Your task to perform on an android device: change the clock style Image 0: 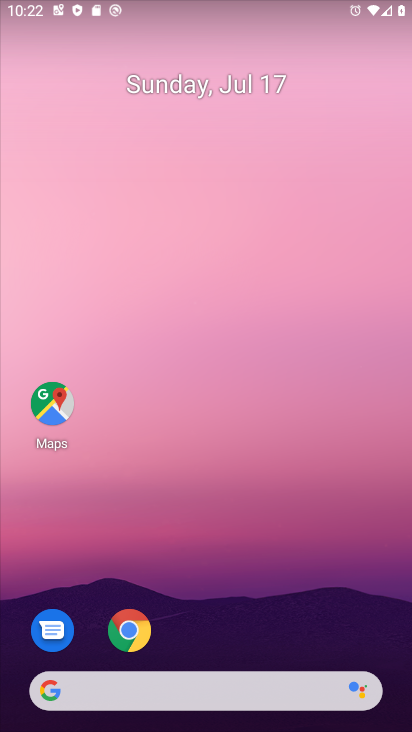
Step 0: drag from (333, 621) to (353, 58)
Your task to perform on an android device: change the clock style Image 1: 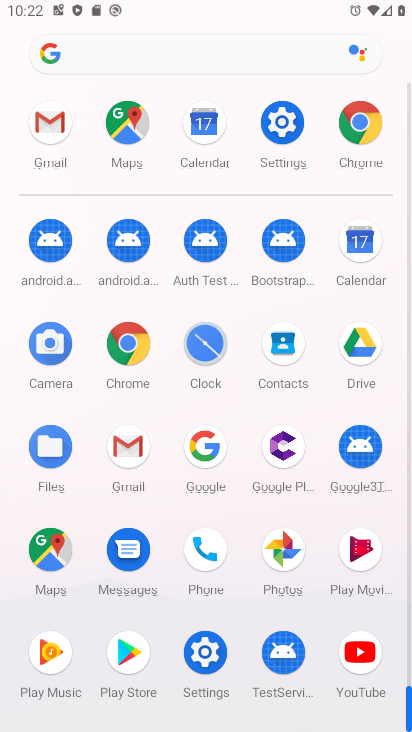
Step 1: click (212, 344)
Your task to perform on an android device: change the clock style Image 2: 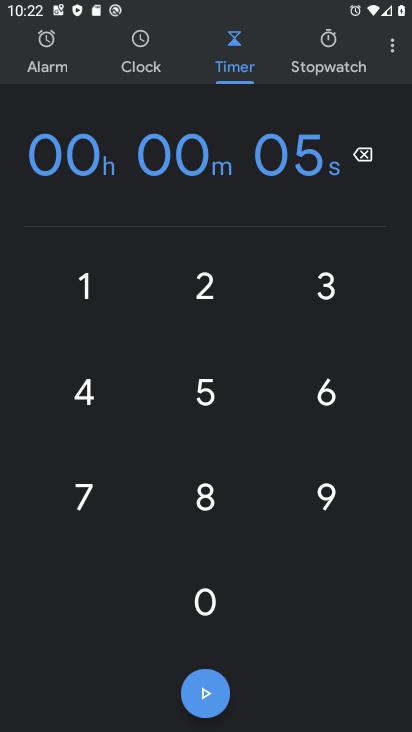
Step 2: click (394, 48)
Your task to perform on an android device: change the clock style Image 3: 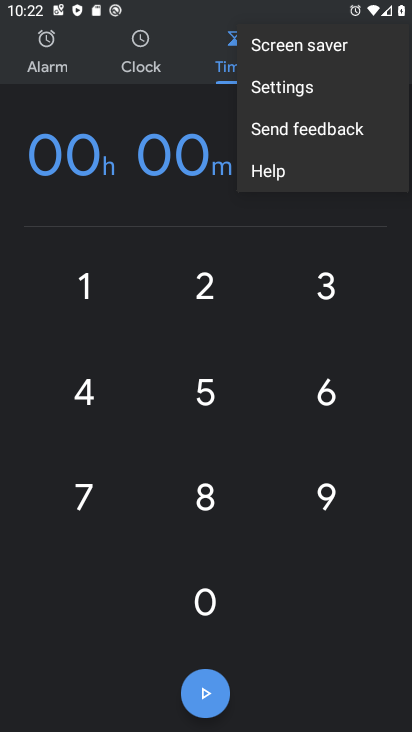
Step 3: click (311, 97)
Your task to perform on an android device: change the clock style Image 4: 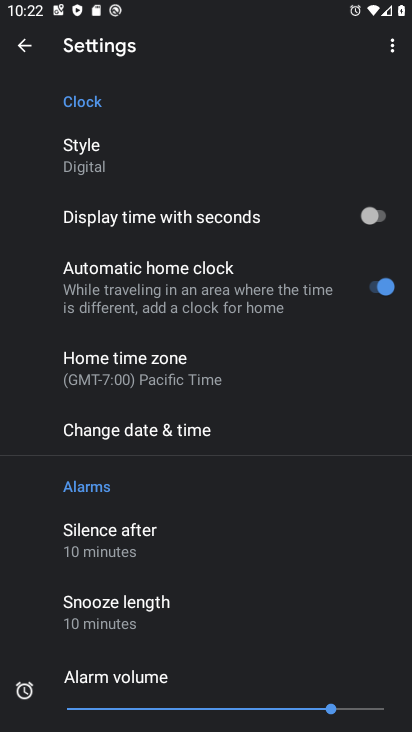
Step 4: drag from (299, 430) to (316, 308)
Your task to perform on an android device: change the clock style Image 5: 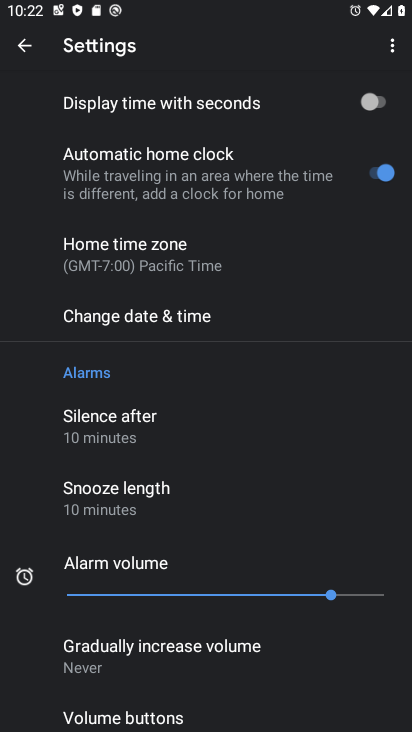
Step 5: drag from (294, 478) to (314, 227)
Your task to perform on an android device: change the clock style Image 6: 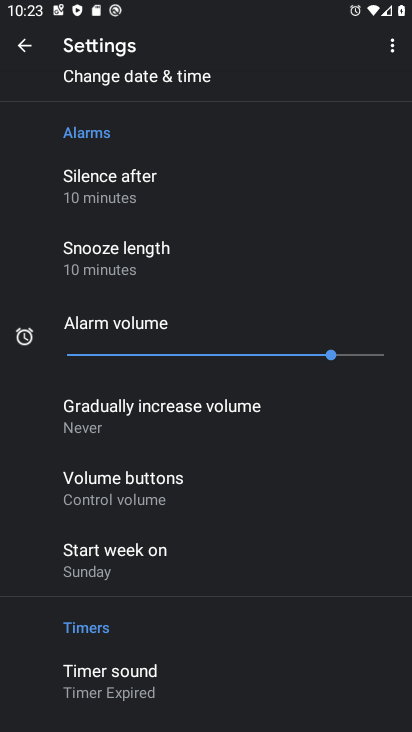
Step 6: drag from (307, 484) to (316, 259)
Your task to perform on an android device: change the clock style Image 7: 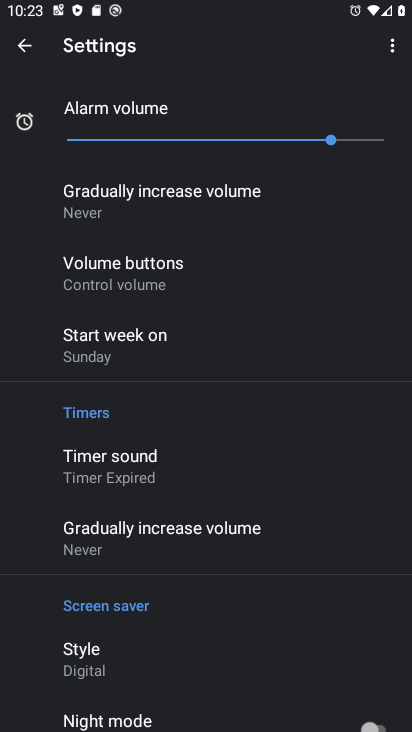
Step 7: drag from (297, 392) to (302, 227)
Your task to perform on an android device: change the clock style Image 8: 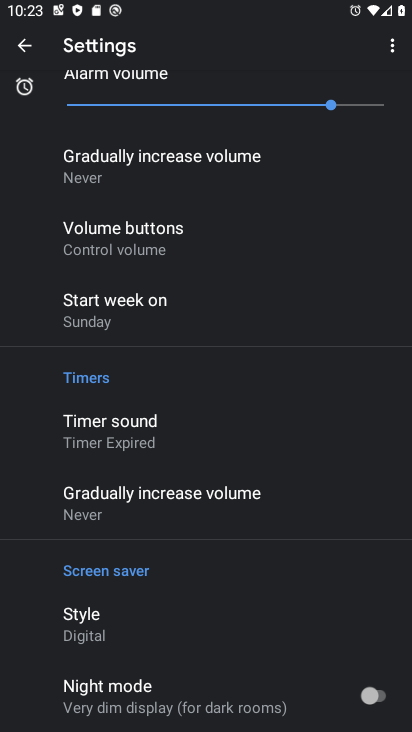
Step 8: drag from (313, 185) to (296, 364)
Your task to perform on an android device: change the clock style Image 9: 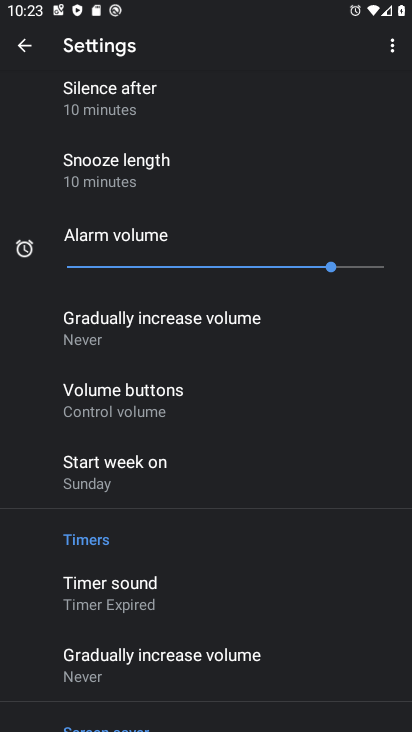
Step 9: drag from (302, 168) to (293, 353)
Your task to perform on an android device: change the clock style Image 10: 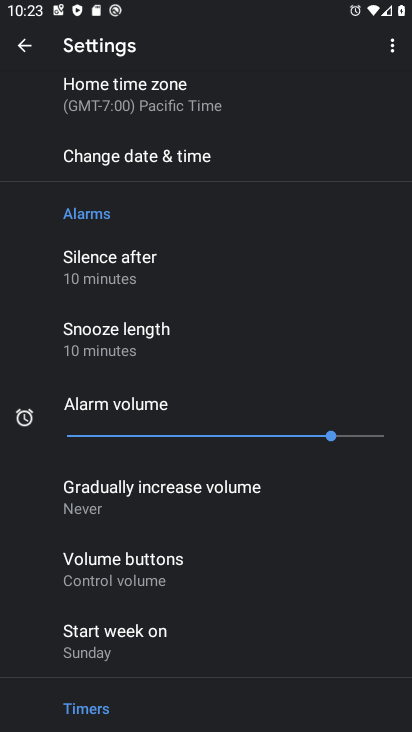
Step 10: drag from (313, 207) to (320, 377)
Your task to perform on an android device: change the clock style Image 11: 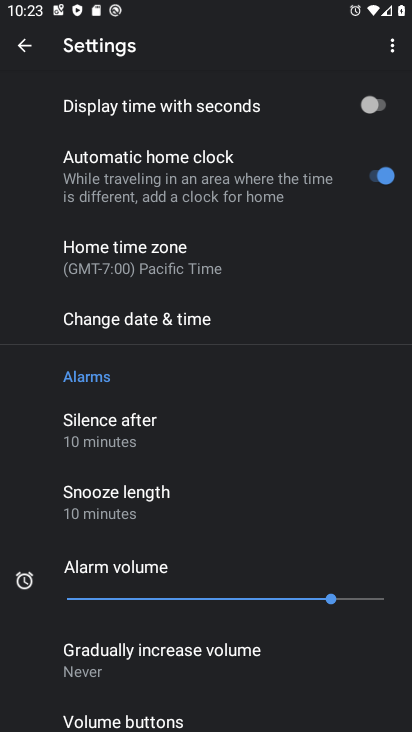
Step 11: drag from (320, 114) to (330, 362)
Your task to perform on an android device: change the clock style Image 12: 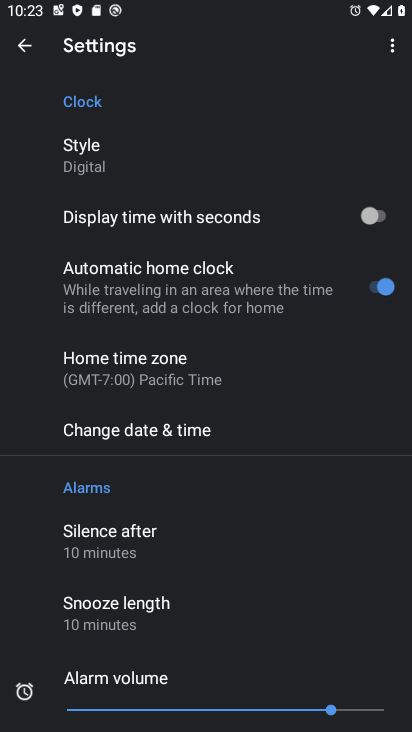
Step 12: drag from (310, 111) to (305, 328)
Your task to perform on an android device: change the clock style Image 13: 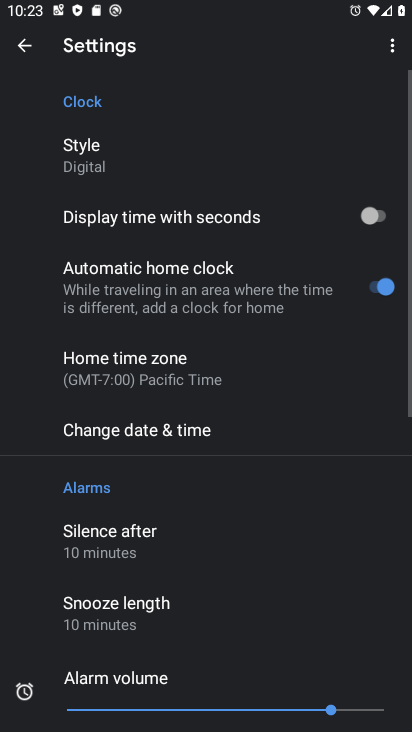
Step 13: drag from (310, 438) to (328, 254)
Your task to perform on an android device: change the clock style Image 14: 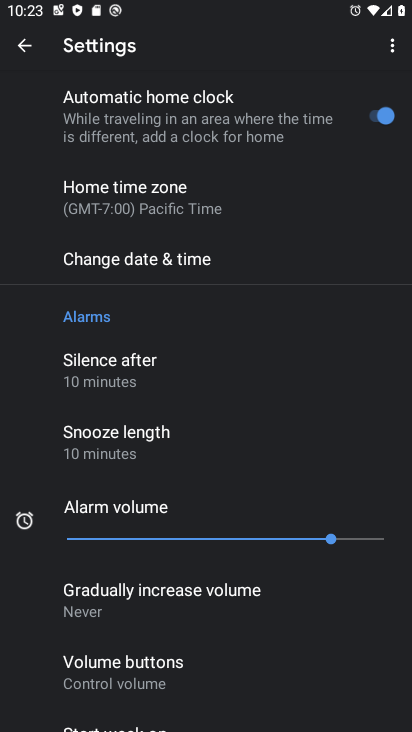
Step 14: drag from (328, 436) to (320, 266)
Your task to perform on an android device: change the clock style Image 15: 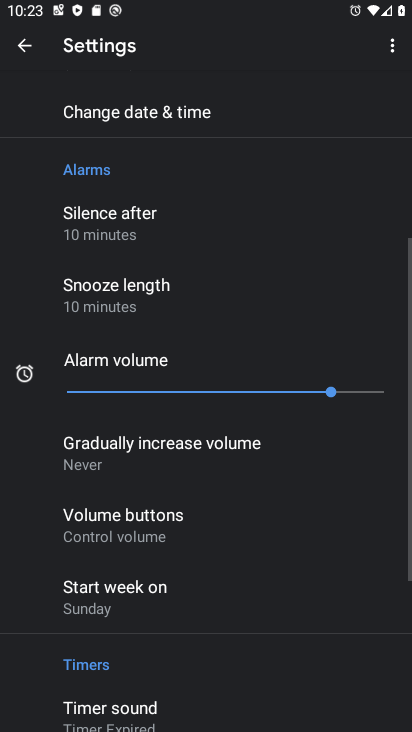
Step 15: drag from (315, 527) to (323, 264)
Your task to perform on an android device: change the clock style Image 16: 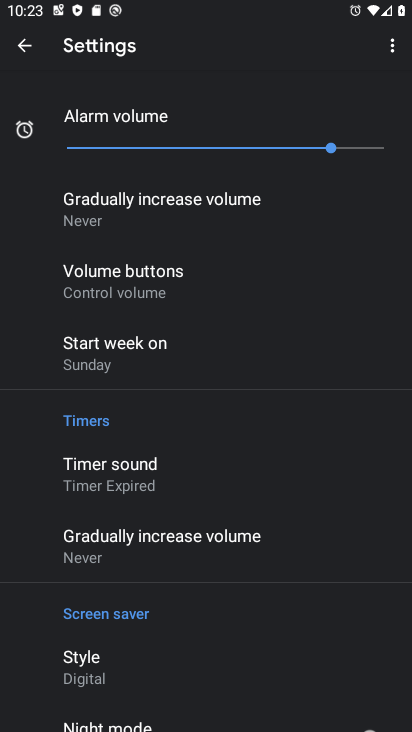
Step 16: drag from (330, 199) to (324, 376)
Your task to perform on an android device: change the clock style Image 17: 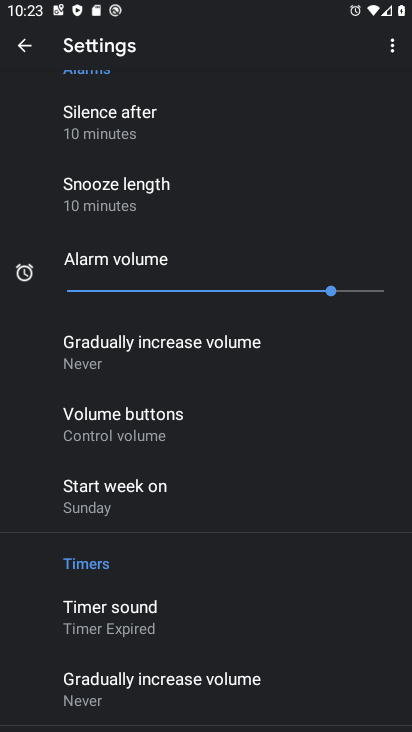
Step 17: drag from (330, 168) to (339, 390)
Your task to perform on an android device: change the clock style Image 18: 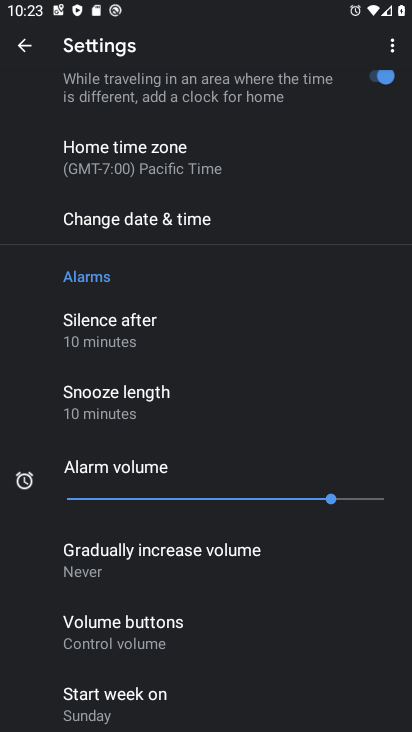
Step 18: drag from (342, 156) to (350, 364)
Your task to perform on an android device: change the clock style Image 19: 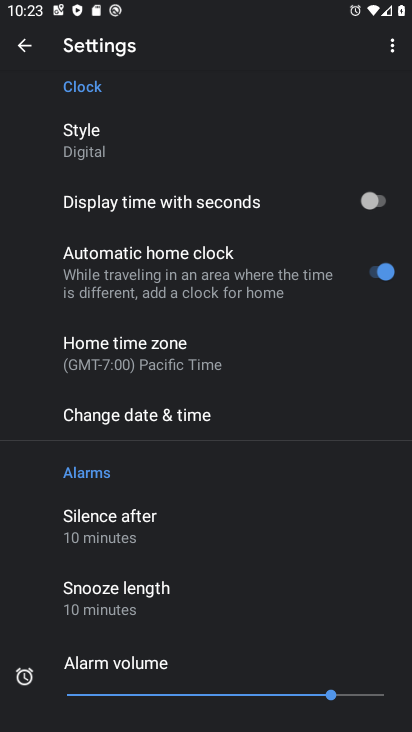
Step 19: drag from (275, 123) to (295, 359)
Your task to perform on an android device: change the clock style Image 20: 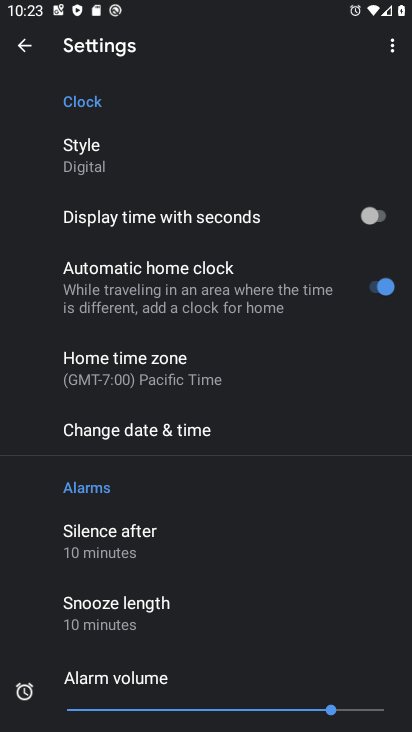
Step 20: click (107, 151)
Your task to perform on an android device: change the clock style Image 21: 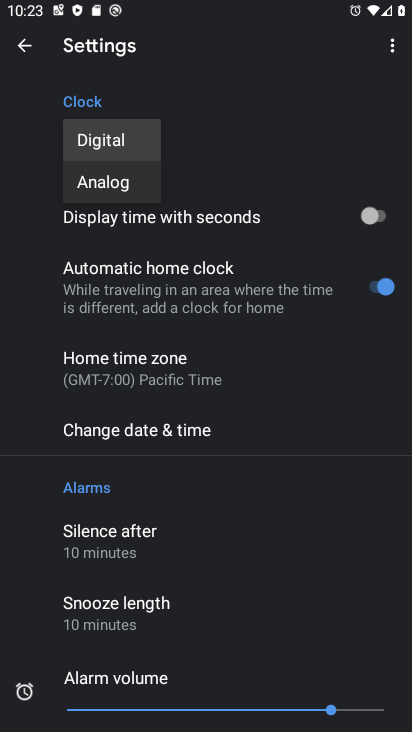
Step 21: click (113, 185)
Your task to perform on an android device: change the clock style Image 22: 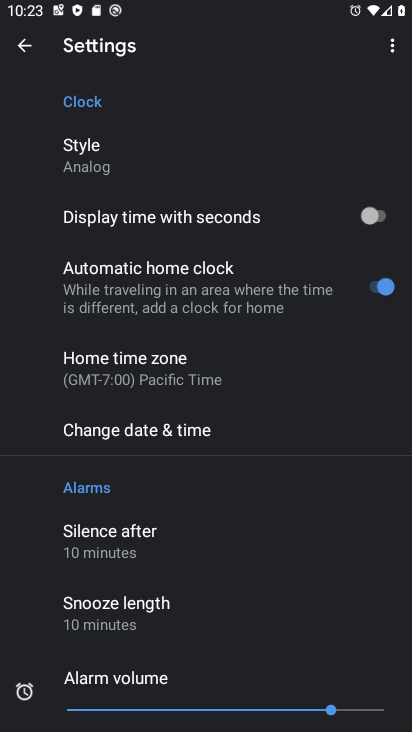
Step 22: task complete